Your task to perform on an android device: Open the web browser Image 0: 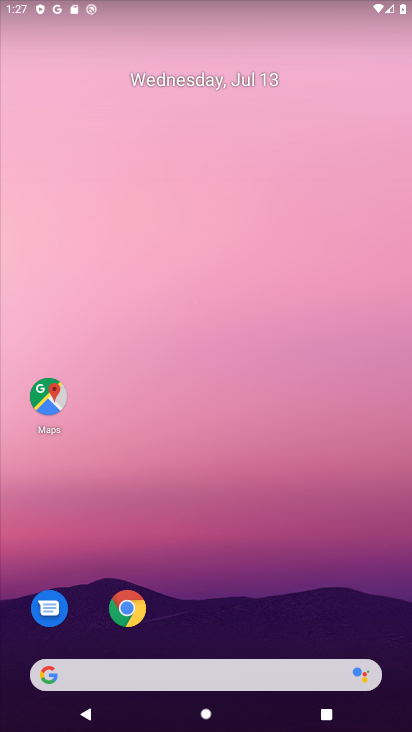
Step 0: drag from (197, 6) to (176, 144)
Your task to perform on an android device: Open the web browser Image 1: 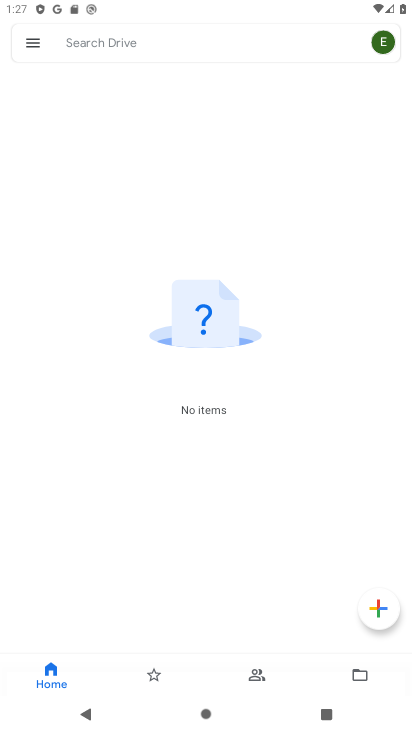
Step 1: press home button
Your task to perform on an android device: Open the web browser Image 2: 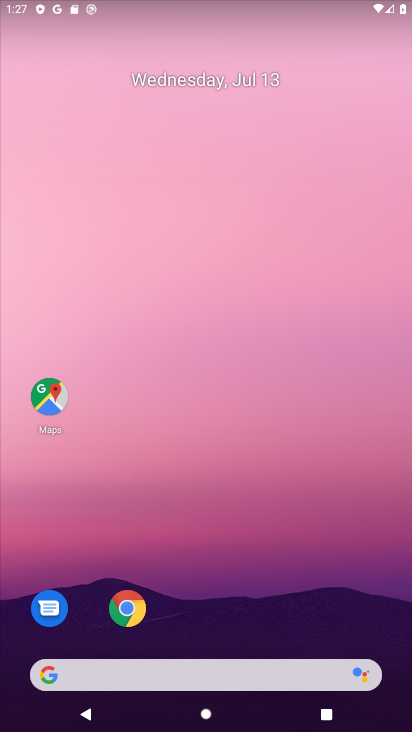
Step 2: click (79, 669)
Your task to perform on an android device: Open the web browser Image 3: 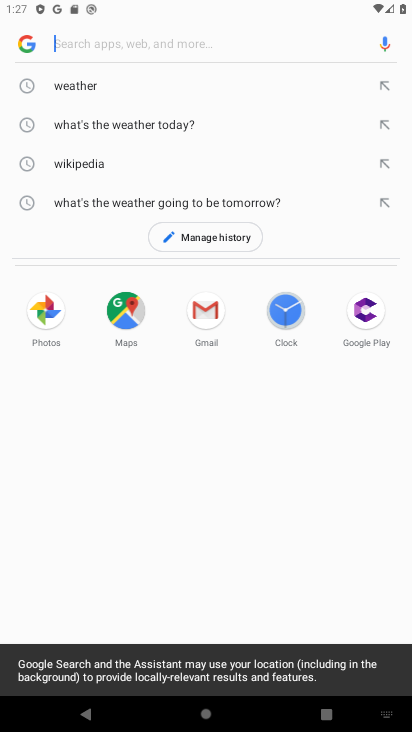
Step 3: task complete